Your task to perform on an android device: Search for "acer predator" on amazon.com, select the first entry, add it to the cart, then select checkout. Image 0: 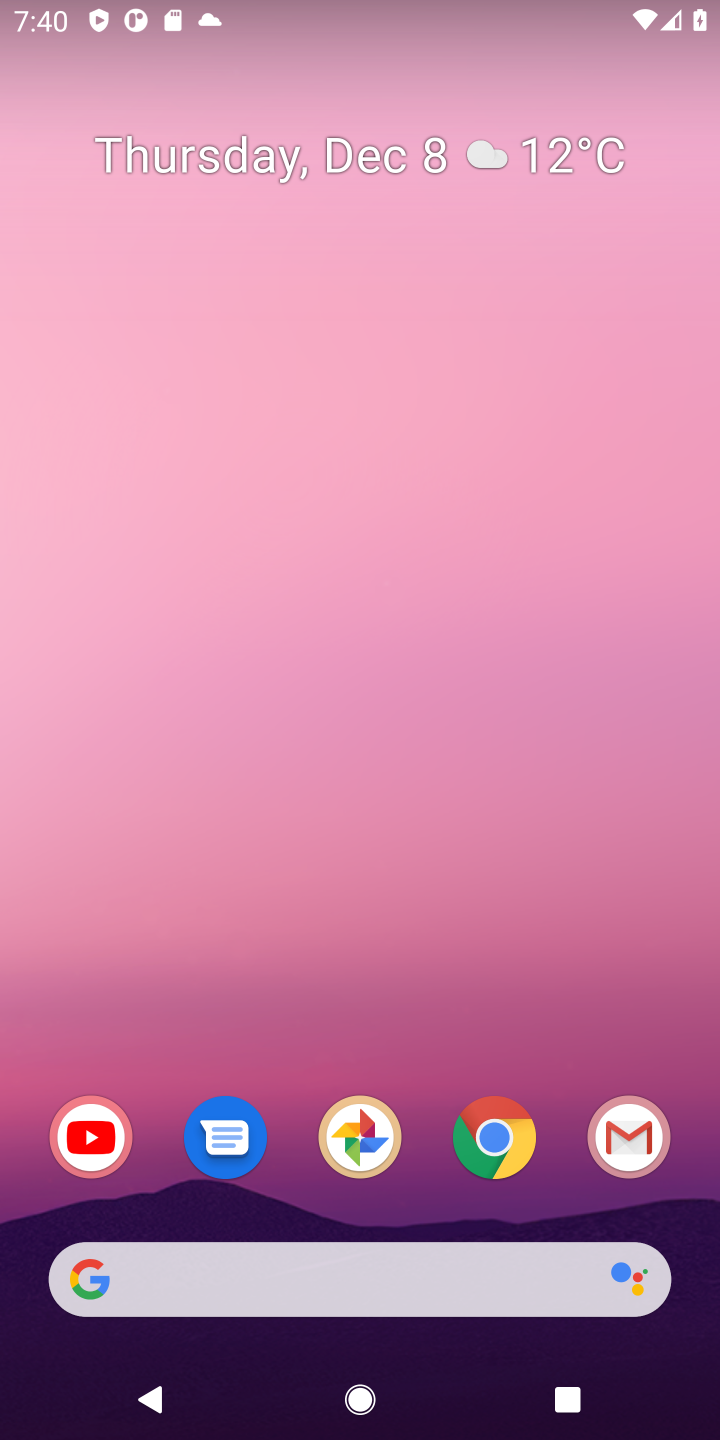
Step 0: click (476, 1120)
Your task to perform on an android device: Search for "acer predator" on amazon.com, select the first entry, add it to the cart, then select checkout. Image 1: 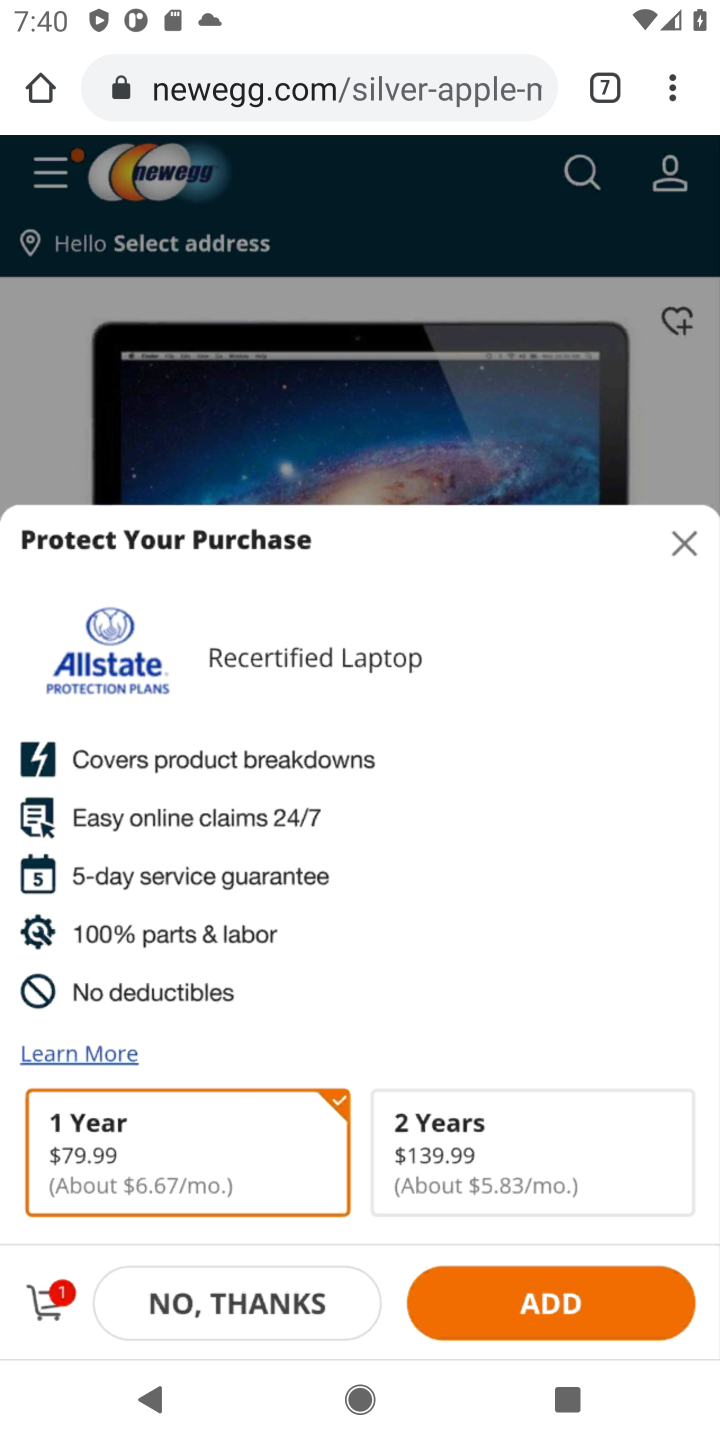
Step 1: click (613, 86)
Your task to perform on an android device: Search for "acer predator" on amazon.com, select the first entry, add it to the cart, then select checkout. Image 2: 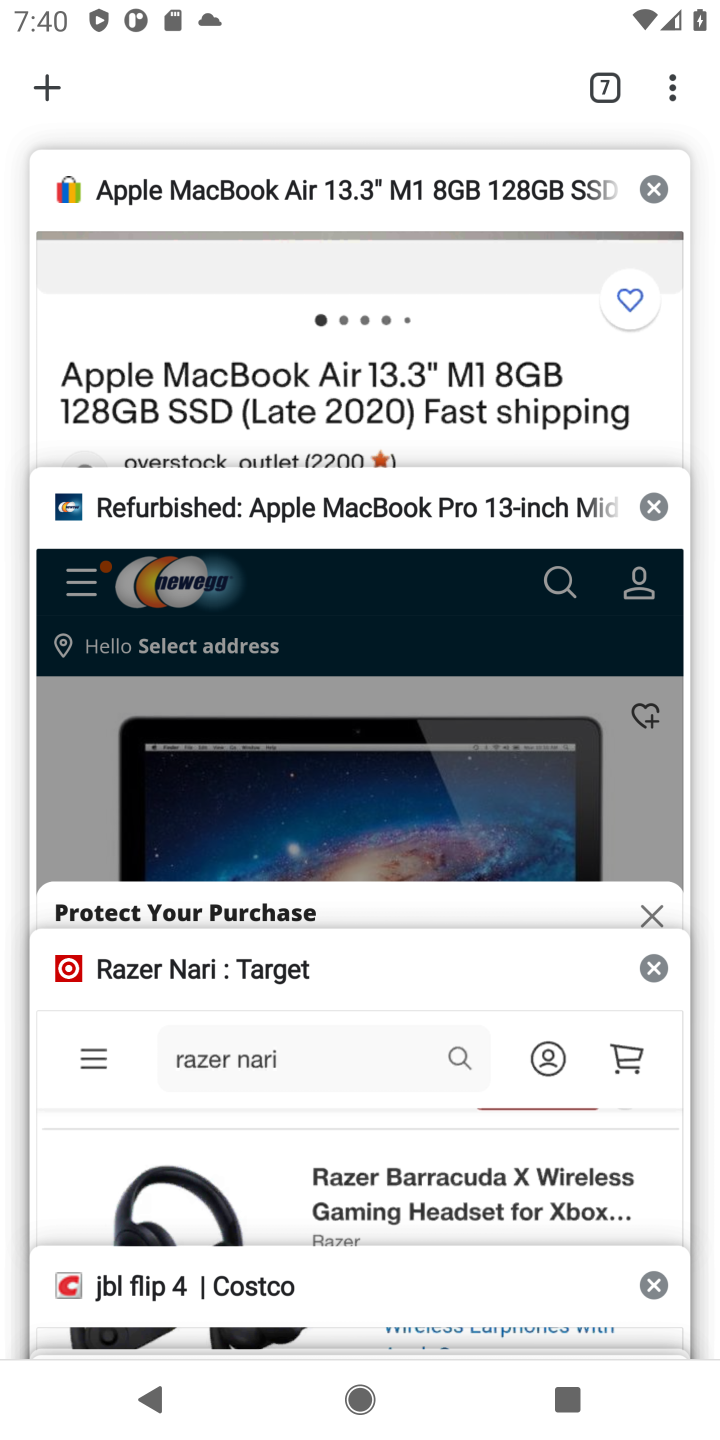
Step 2: drag from (264, 1305) to (311, 452)
Your task to perform on an android device: Search for "acer predator" on amazon.com, select the first entry, add it to the cart, then select checkout. Image 3: 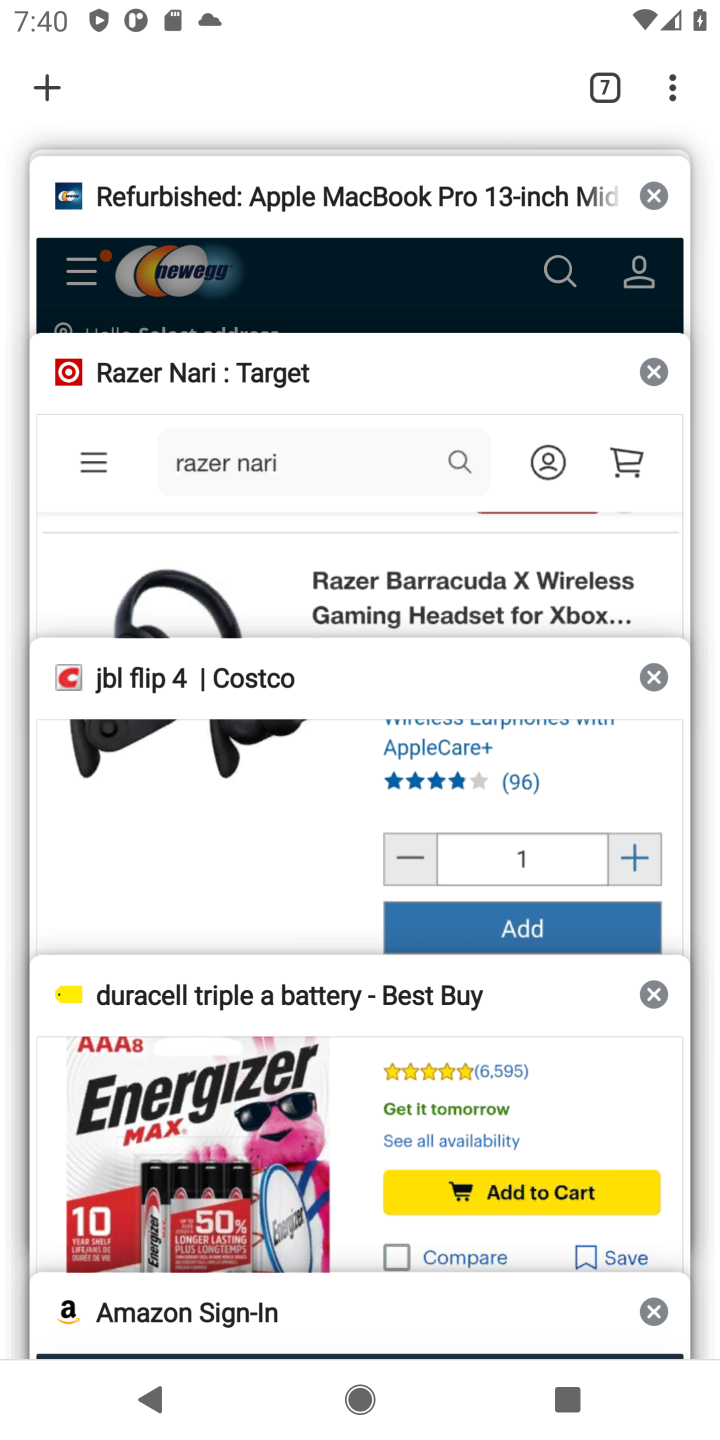
Step 3: drag from (297, 1211) to (329, 576)
Your task to perform on an android device: Search for "acer predator" on amazon.com, select the first entry, add it to the cart, then select checkout. Image 4: 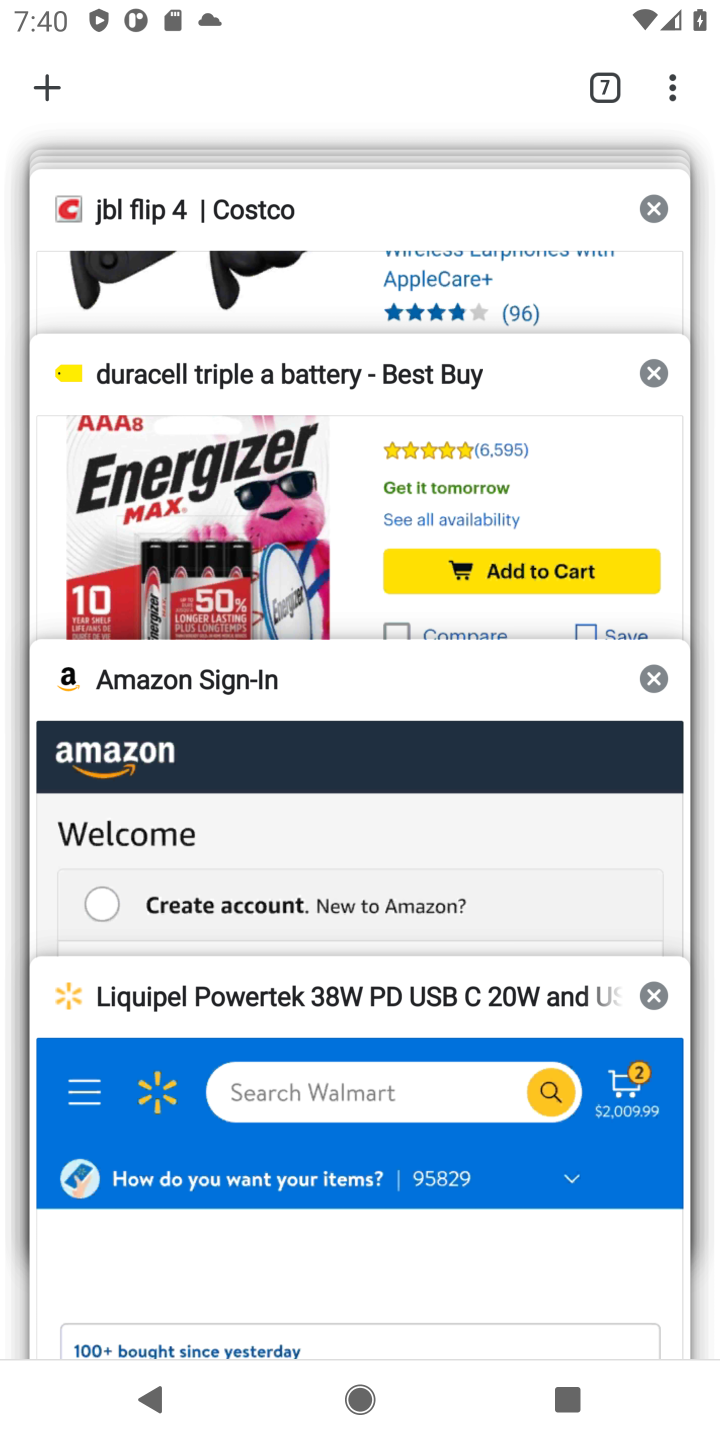
Step 4: click (343, 777)
Your task to perform on an android device: Search for "acer predator" on amazon.com, select the first entry, add it to the cart, then select checkout. Image 5: 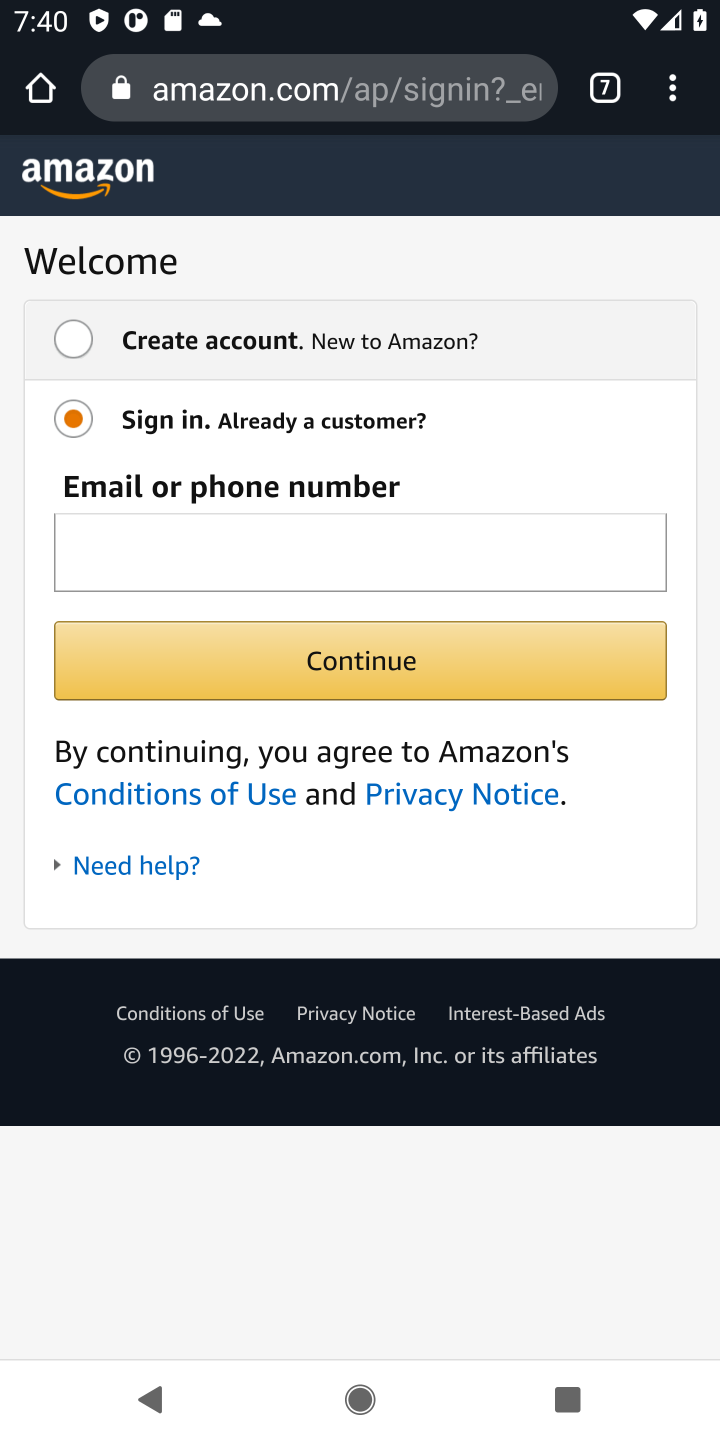
Step 5: press back button
Your task to perform on an android device: Search for "acer predator" on amazon.com, select the first entry, add it to the cart, then select checkout. Image 6: 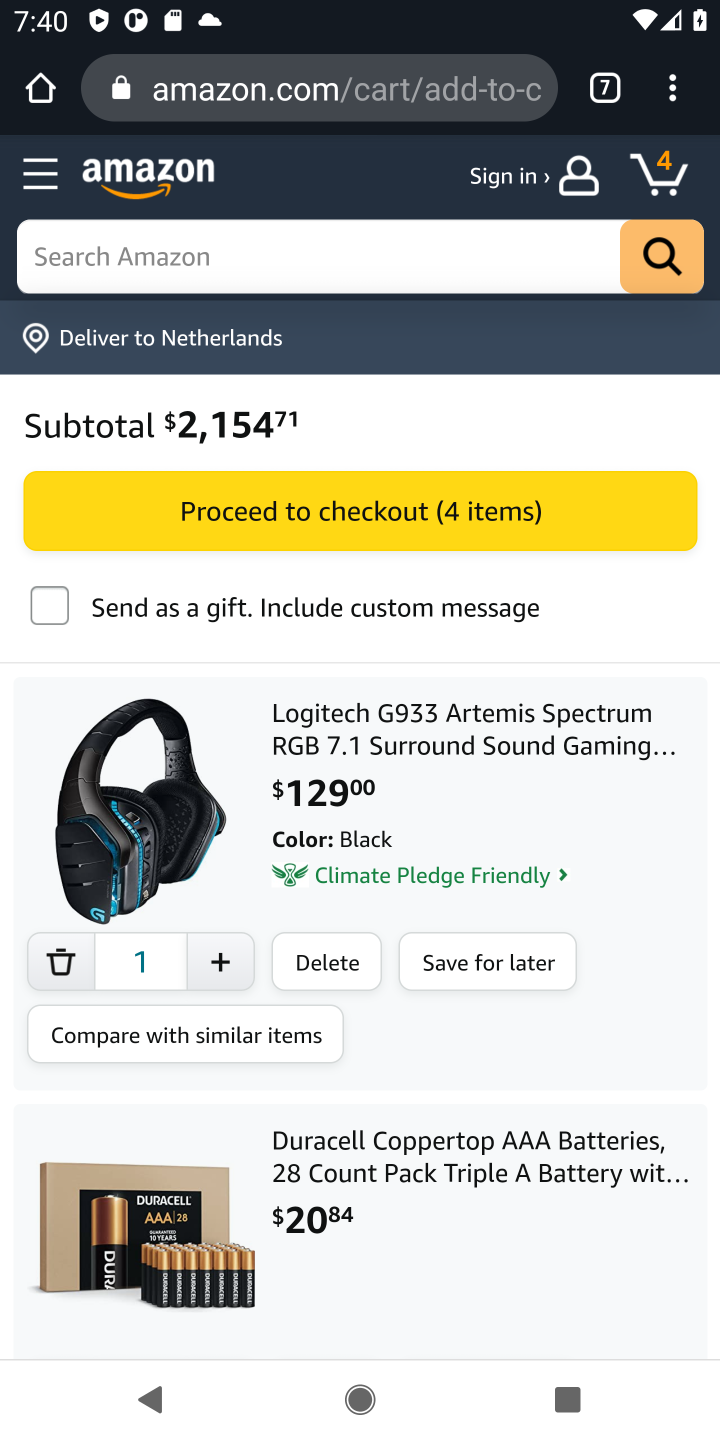
Step 6: click (347, 262)
Your task to perform on an android device: Search for "acer predator" on amazon.com, select the first entry, add it to the cart, then select checkout. Image 7: 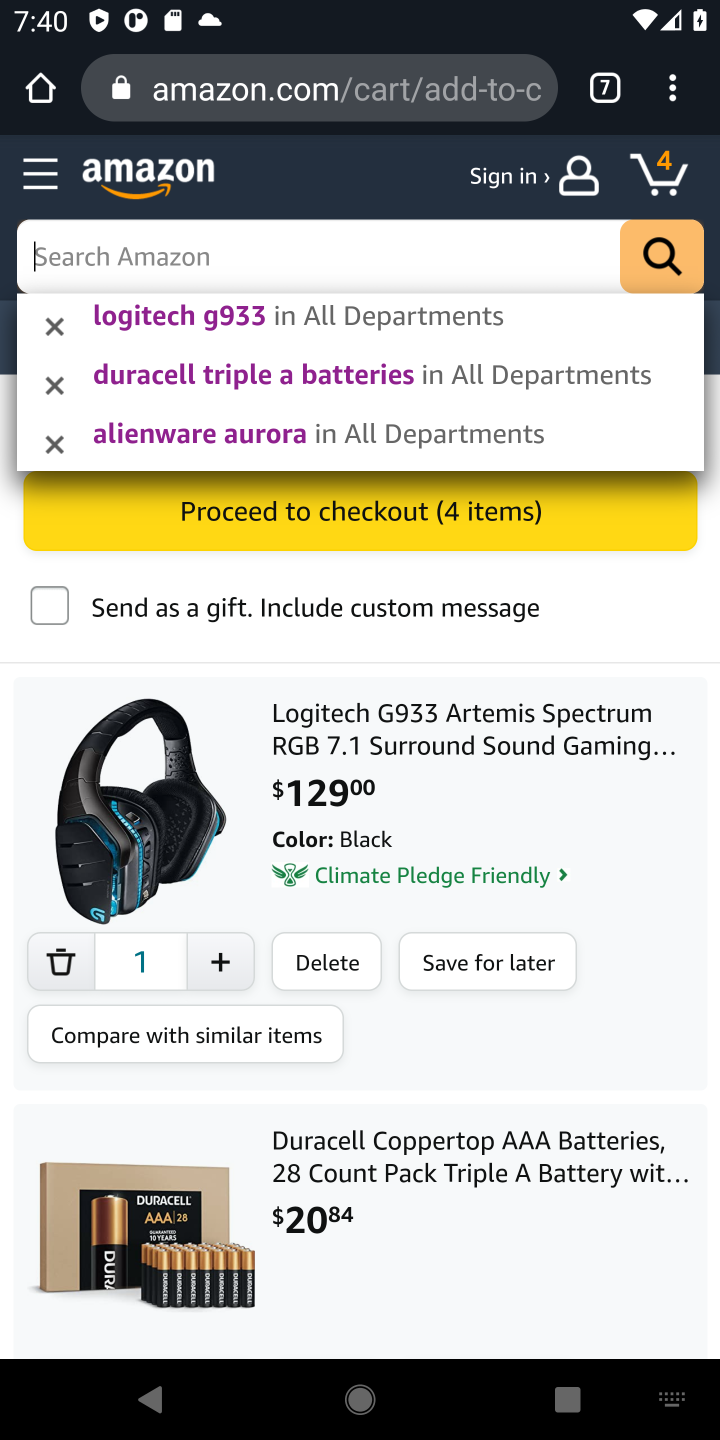
Step 7: type "acer predator"
Your task to perform on an android device: Search for "acer predator" on amazon.com, select the first entry, add it to the cart, then select checkout. Image 8: 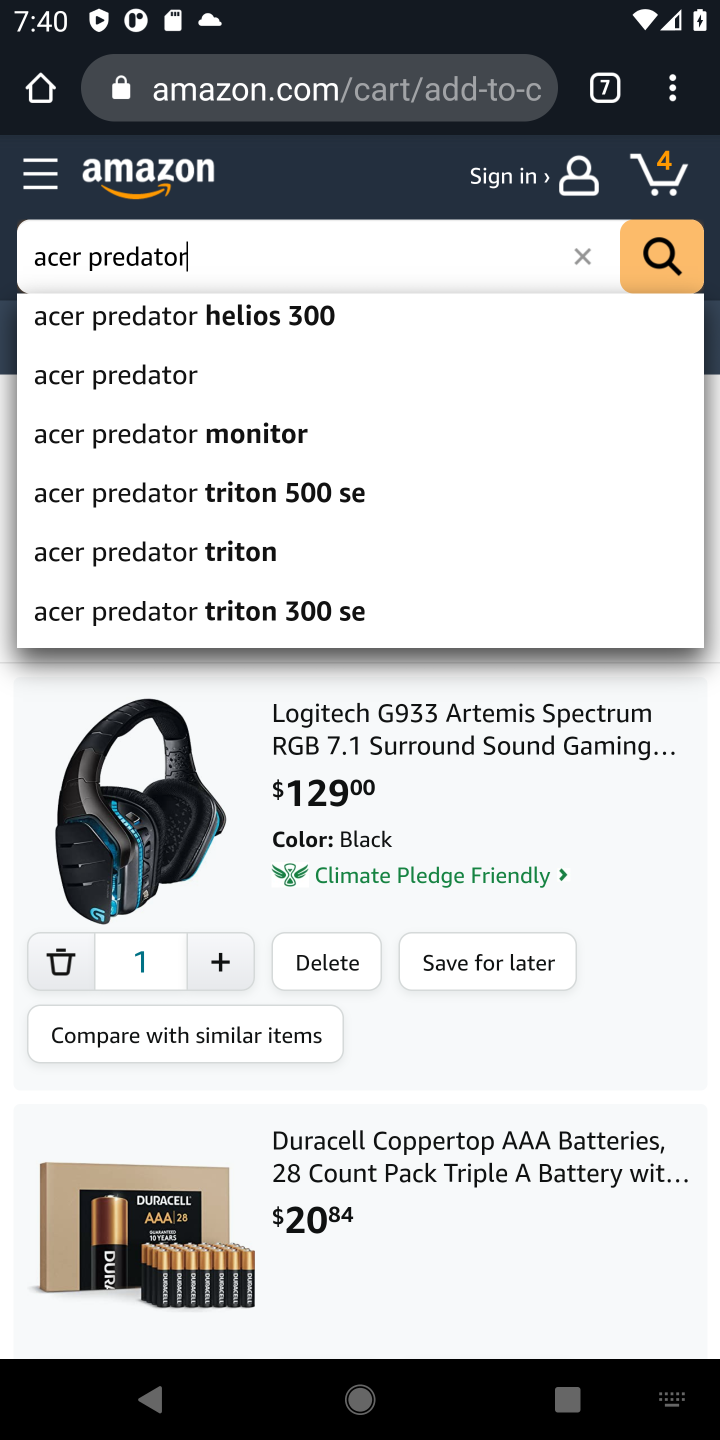
Step 8: click (648, 265)
Your task to perform on an android device: Search for "acer predator" on amazon.com, select the first entry, add it to the cart, then select checkout. Image 9: 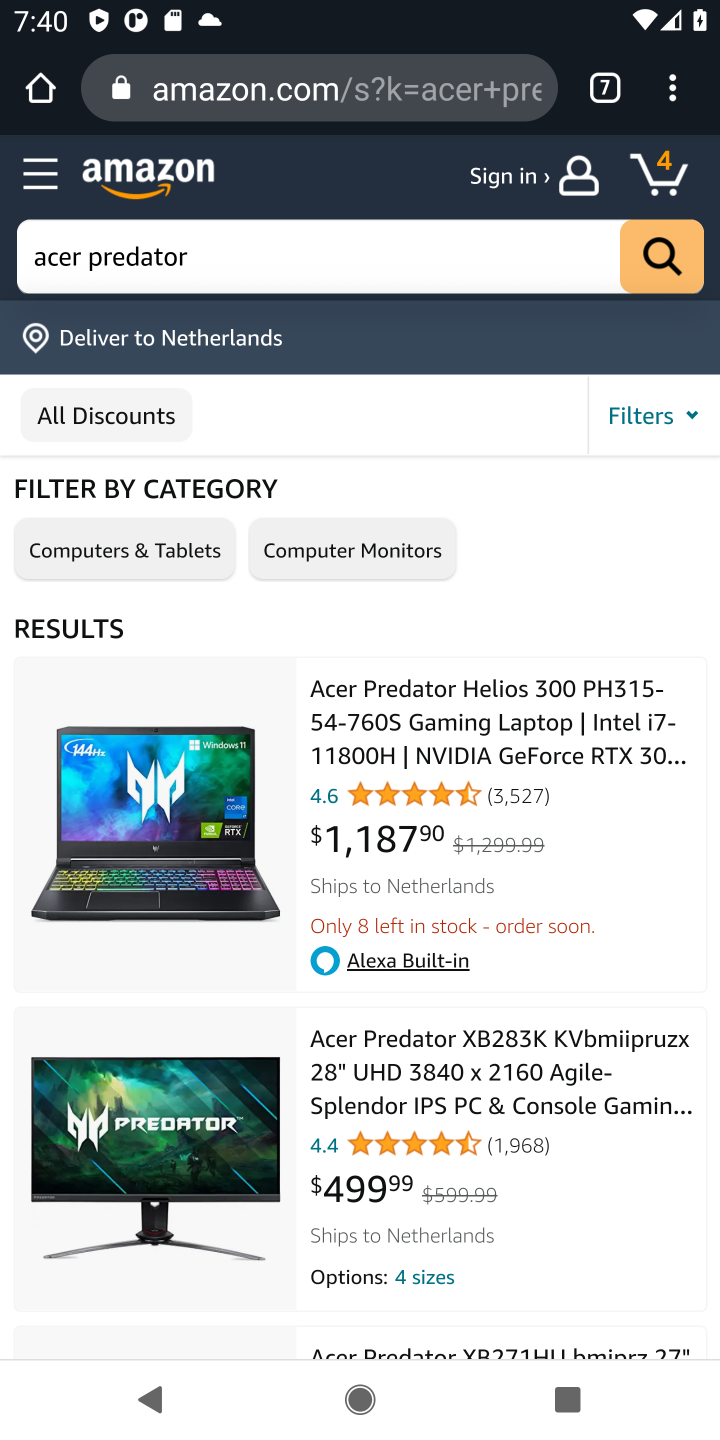
Step 9: click (402, 707)
Your task to perform on an android device: Search for "acer predator" on amazon.com, select the first entry, add it to the cart, then select checkout. Image 10: 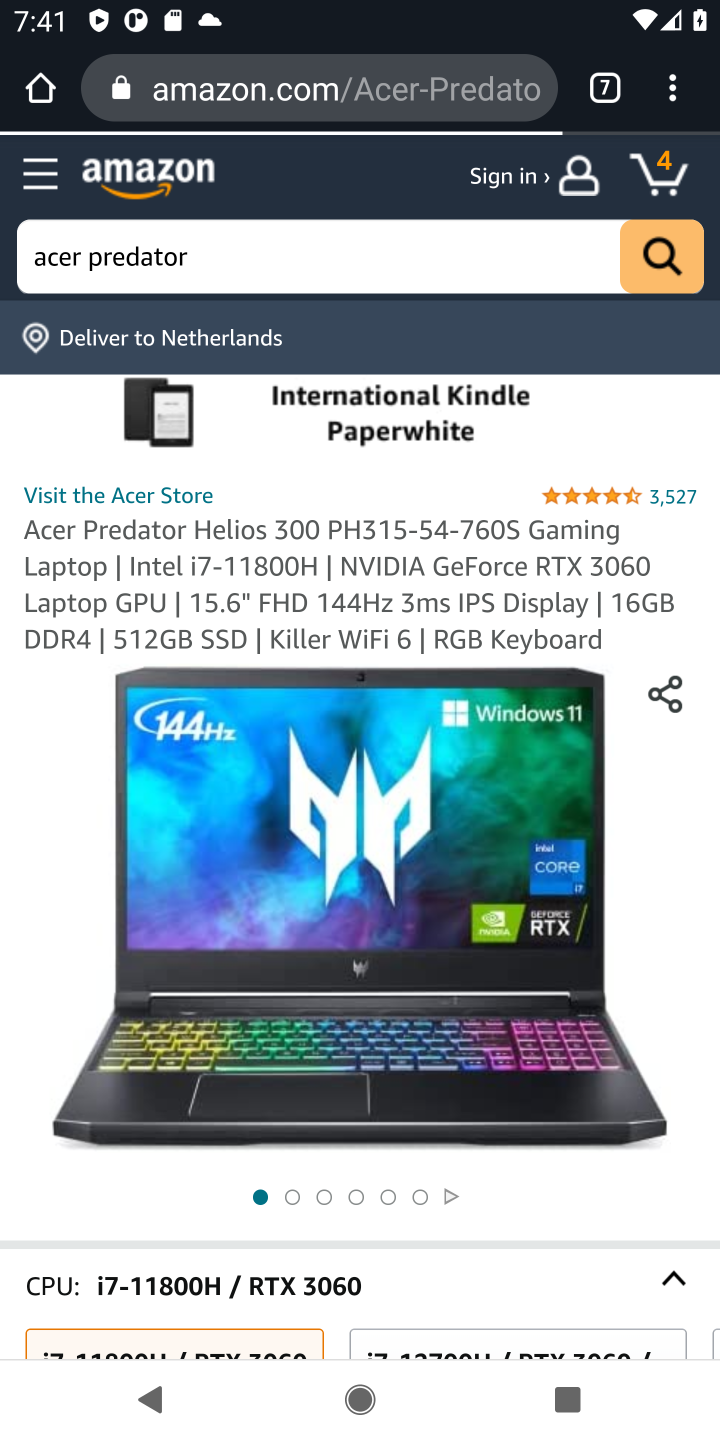
Step 10: drag from (478, 814) to (531, 256)
Your task to perform on an android device: Search for "acer predator" on amazon.com, select the first entry, add it to the cart, then select checkout. Image 11: 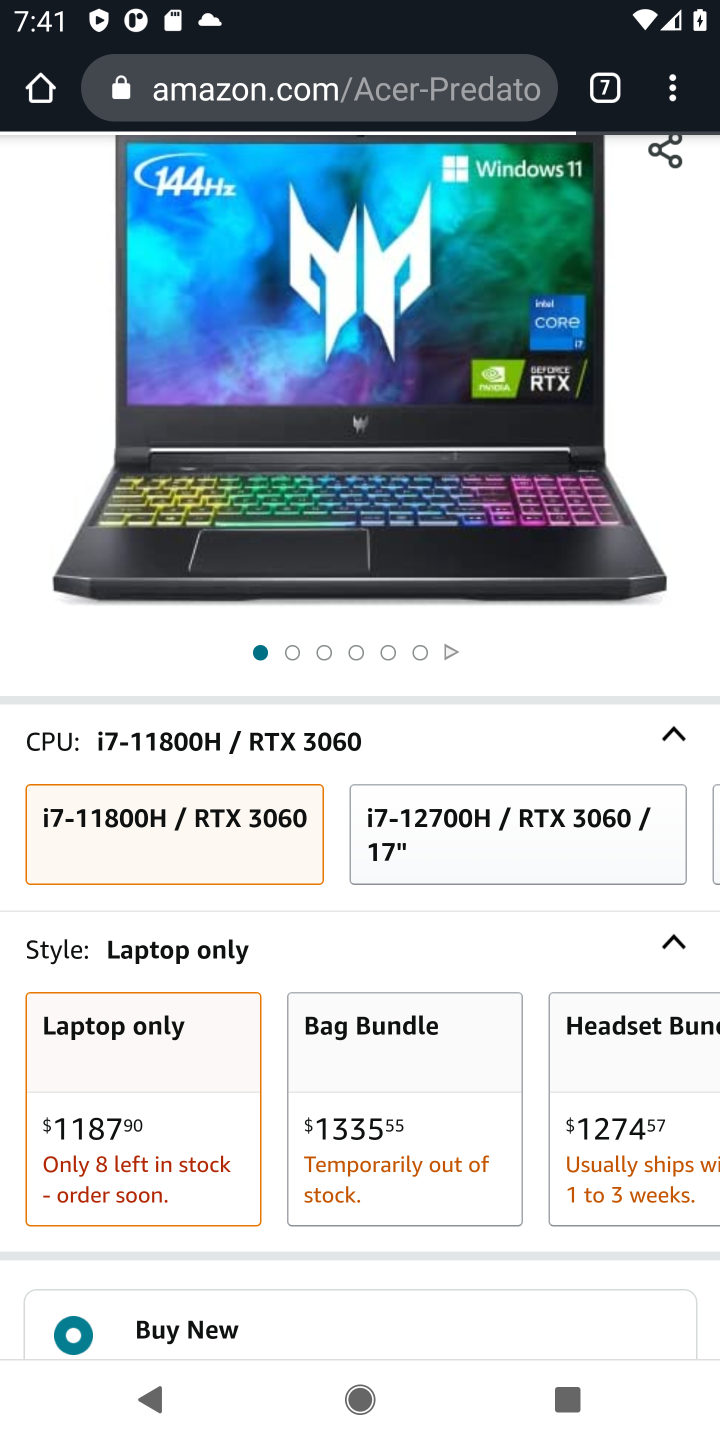
Step 11: drag from (412, 1237) to (465, 641)
Your task to perform on an android device: Search for "acer predator" on amazon.com, select the first entry, add it to the cart, then select checkout. Image 12: 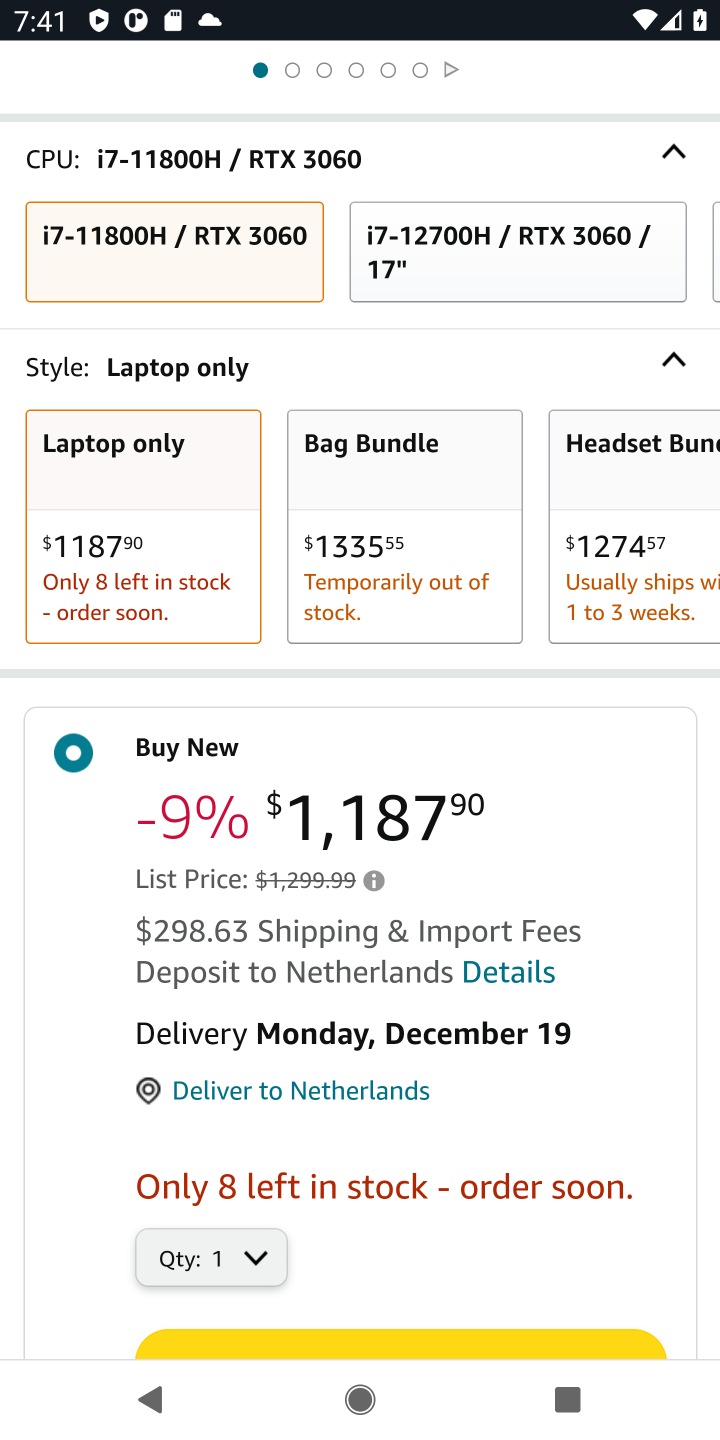
Step 12: drag from (507, 1095) to (539, 375)
Your task to perform on an android device: Search for "acer predator" on amazon.com, select the first entry, add it to the cart, then select checkout. Image 13: 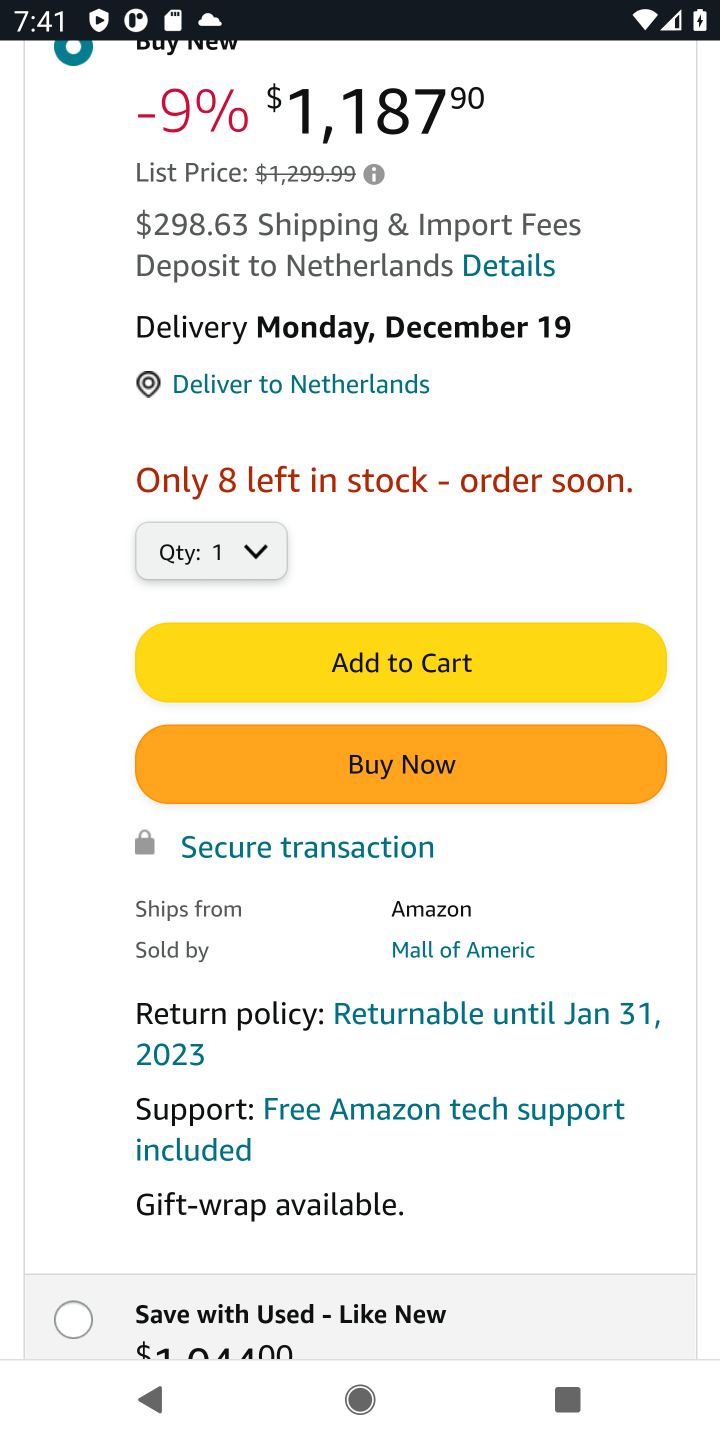
Step 13: click (446, 652)
Your task to perform on an android device: Search for "acer predator" on amazon.com, select the first entry, add it to the cart, then select checkout. Image 14: 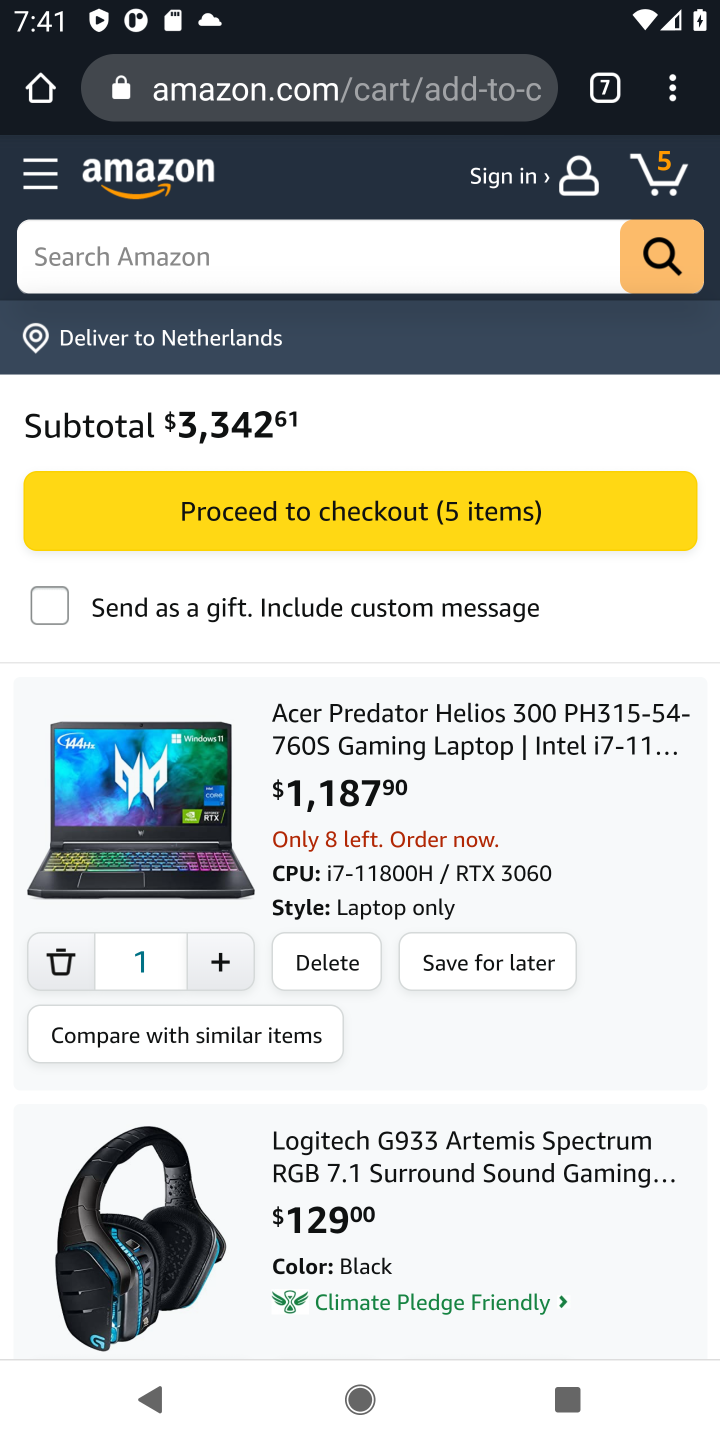
Step 14: task complete